Your task to perform on an android device: Open Yahoo.com Image 0: 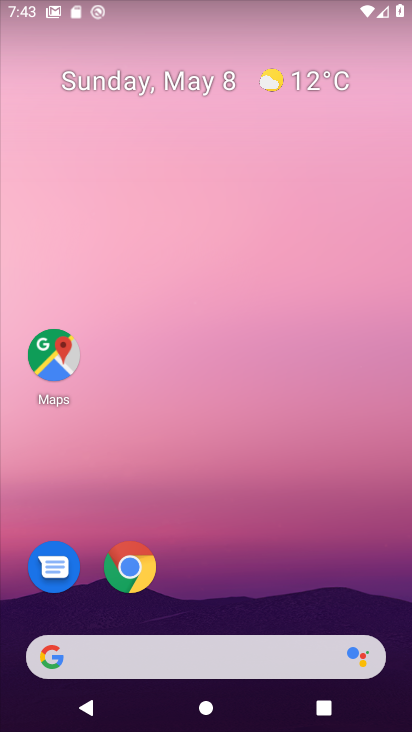
Step 0: click (133, 565)
Your task to perform on an android device: Open Yahoo.com Image 1: 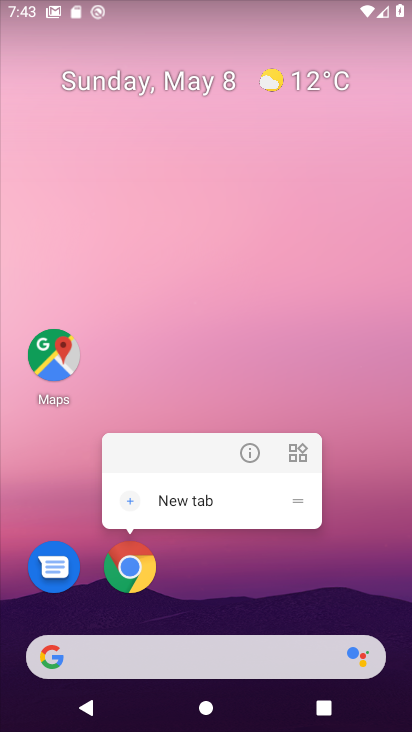
Step 1: click (126, 566)
Your task to perform on an android device: Open Yahoo.com Image 2: 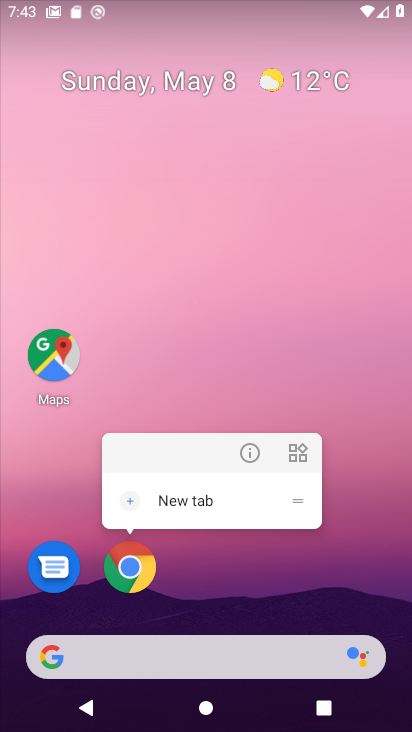
Step 2: click (126, 573)
Your task to perform on an android device: Open Yahoo.com Image 3: 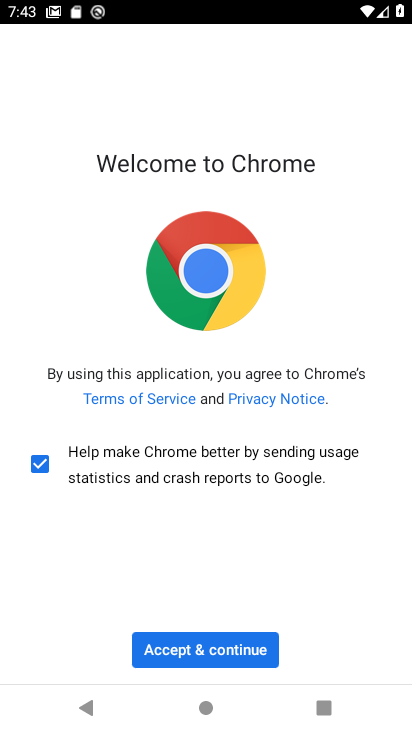
Step 3: click (202, 640)
Your task to perform on an android device: Open Yahoo.com Image 4: 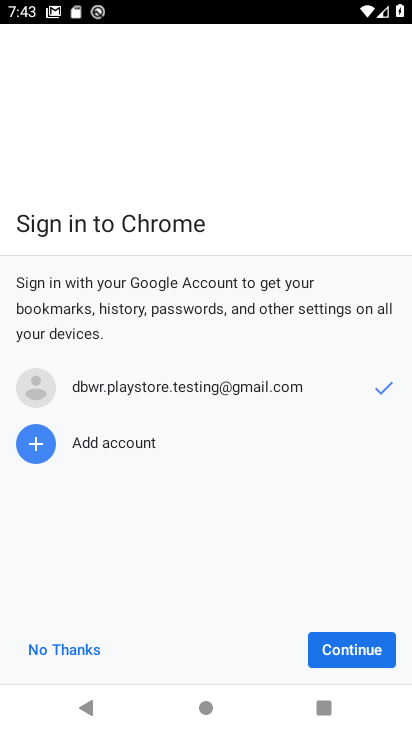
Step 4: click (318, 656)
Your task to perform on an android device: Open Yahoo.com Image 5: 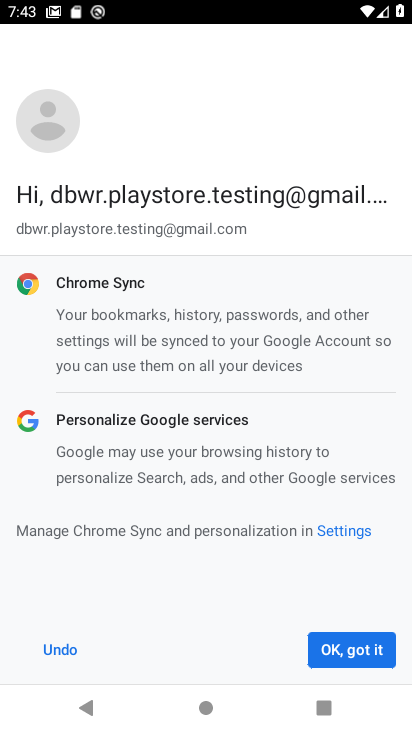
Step 5: click (338, 665)
Your task to perform on an android device: Open Yahoo.com Image 6: 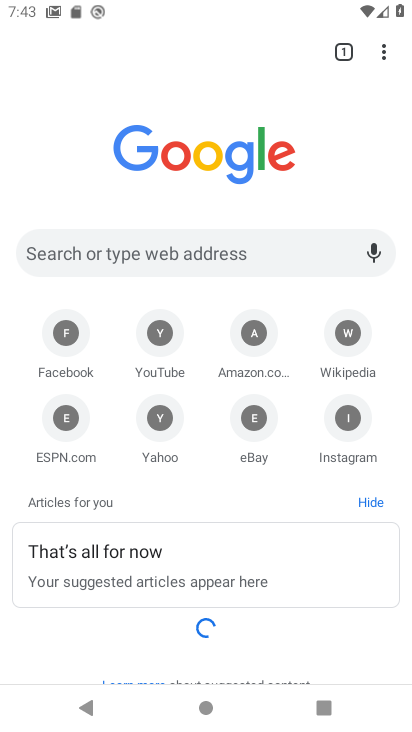
Step 6: click (78, 234)
Your task to perform on an android device: Open Yahoo.com Image 7: 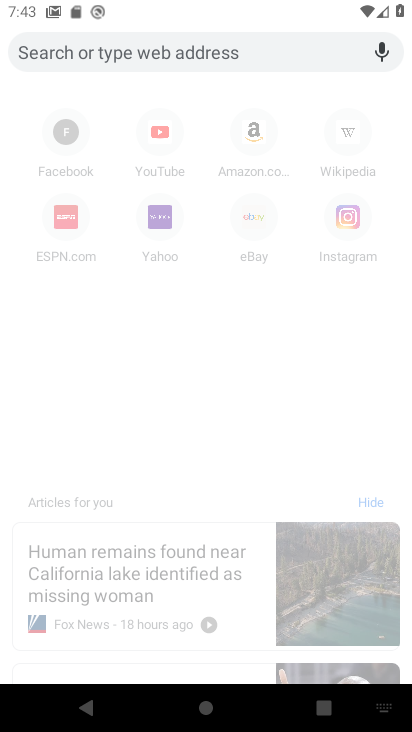
Step 7: type "Yahoo.com"
Your task to perform on an android device: Open Yahoo.com Image 8: 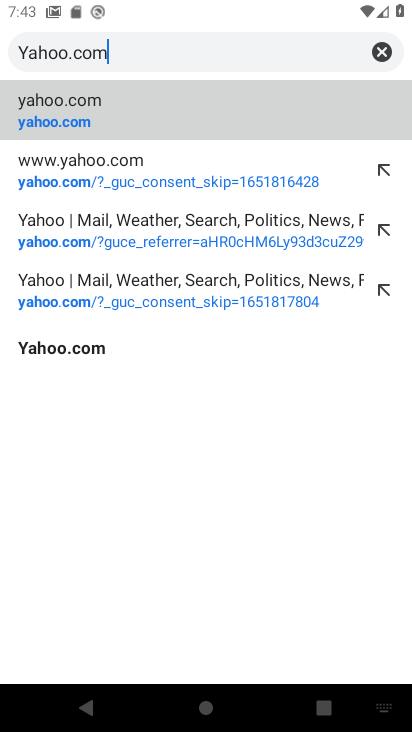
Step 8: click (159, 121)
Your task to perform on an android device: Open Yahoo.com Image 9: 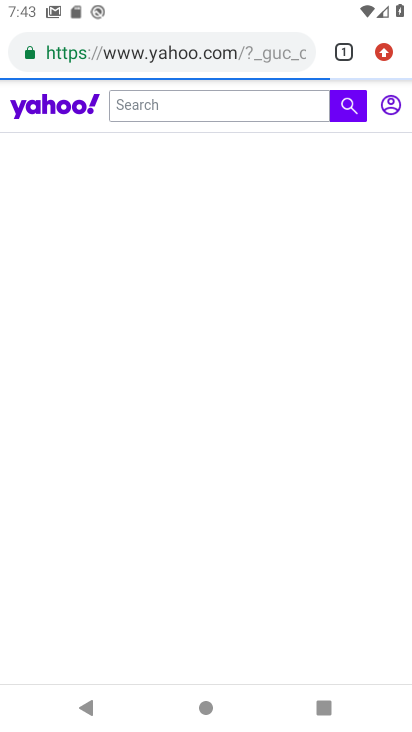
Step 9: task complete